Your task to perform on an android device: open app "Messenger Lite" Image 0: 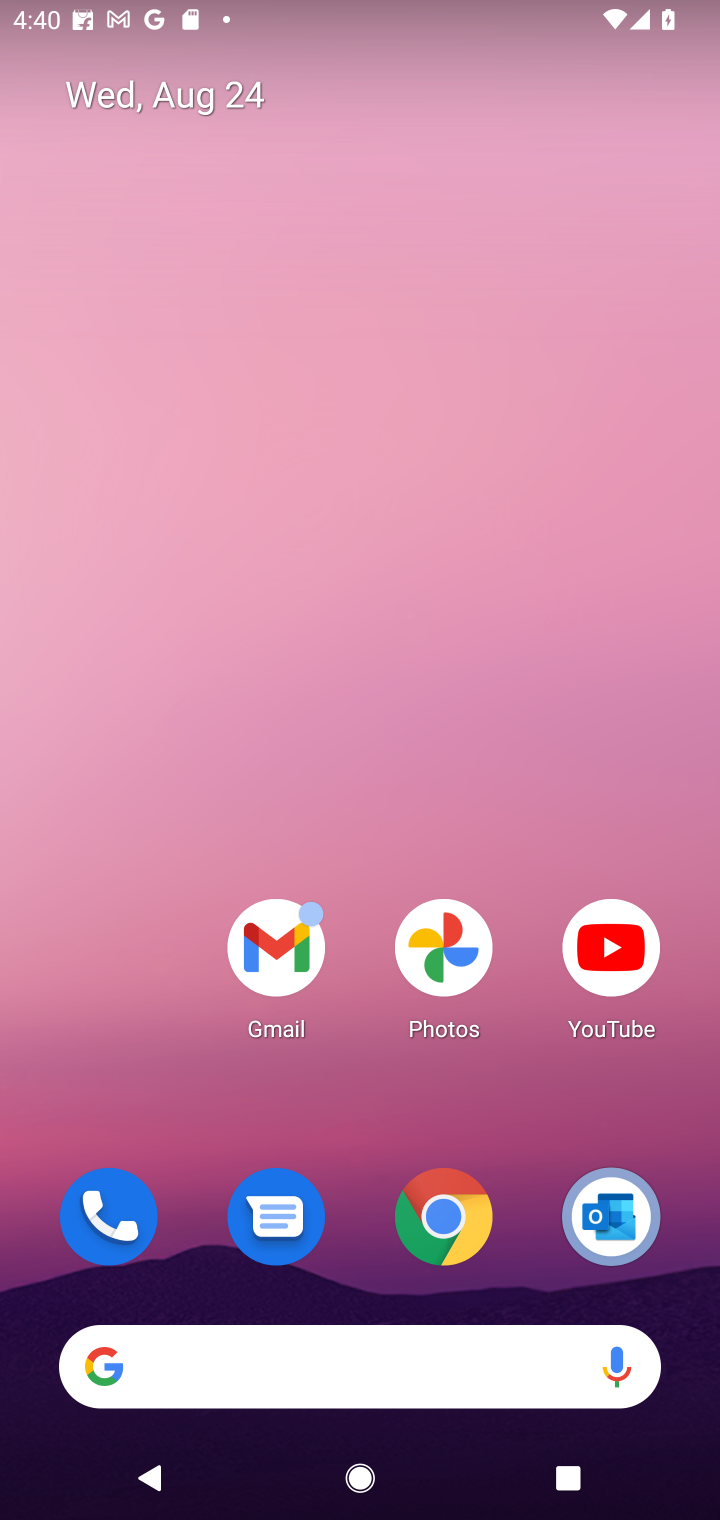
Step 0: drag from (389, 1064) to (413, 237)
Your task to perform on an android device: open app "Messenger Lite" Image 1: 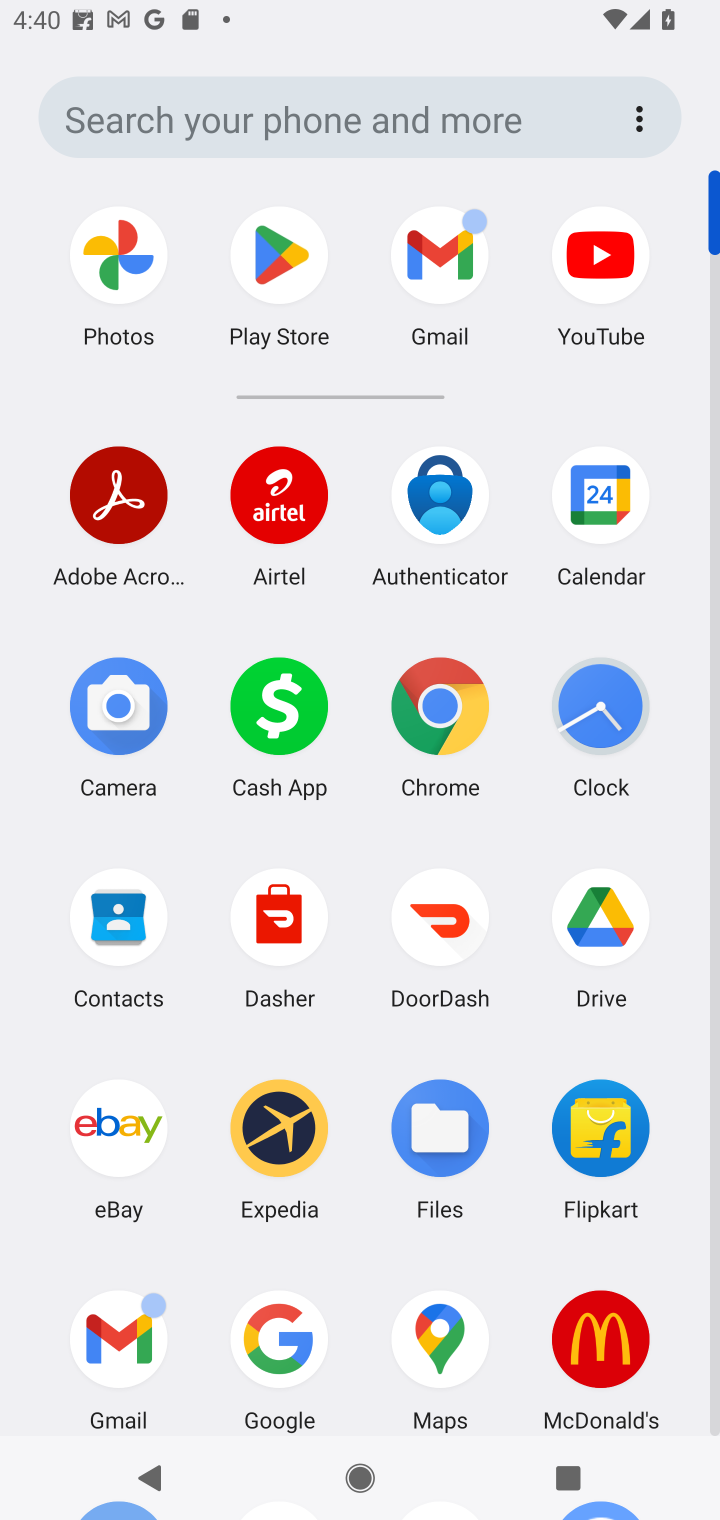
Step 1: click (254, 251)
Your task to perform on an android device: open app "Messenger Lite" Image 2: 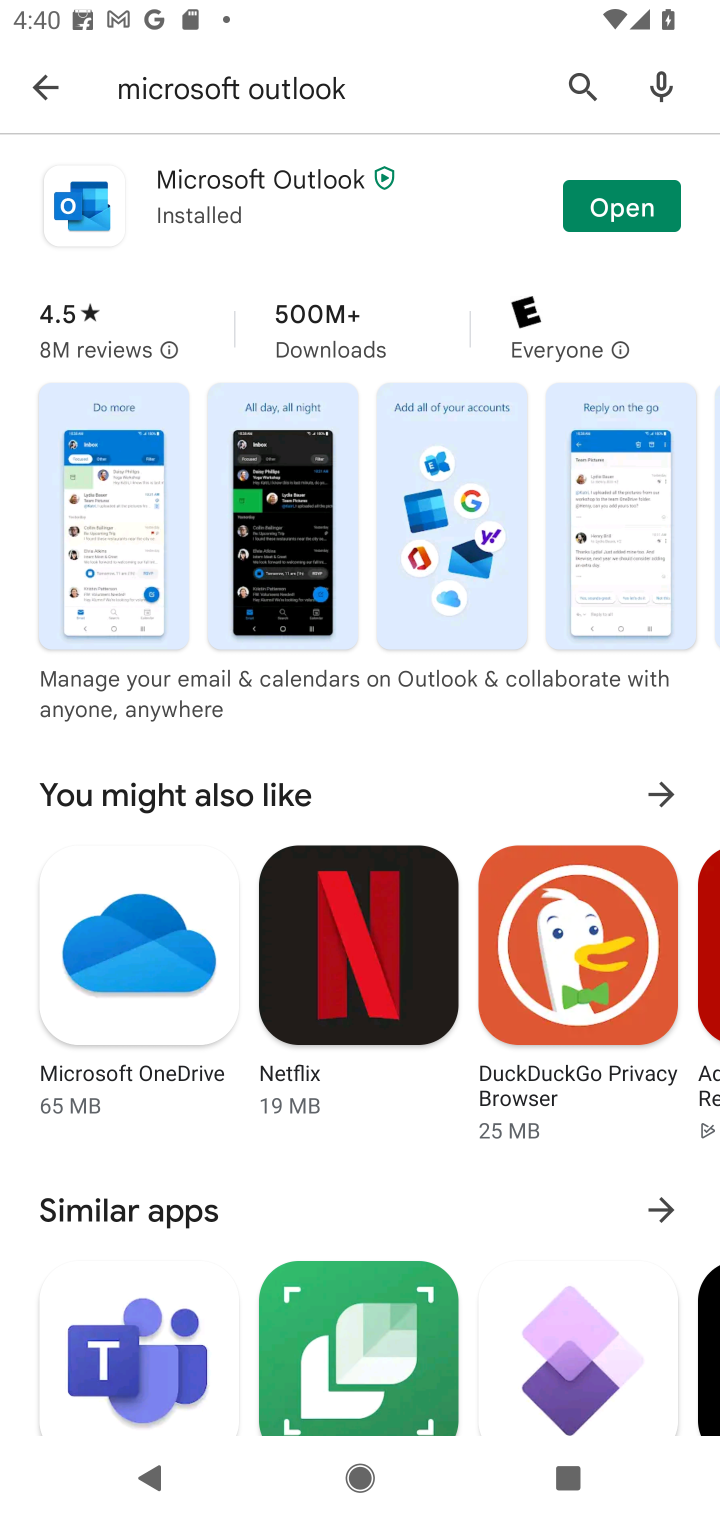
Step 2: click (580, 83)
Your task to perform on an android device: open app "Messenger Lite" Image 3: 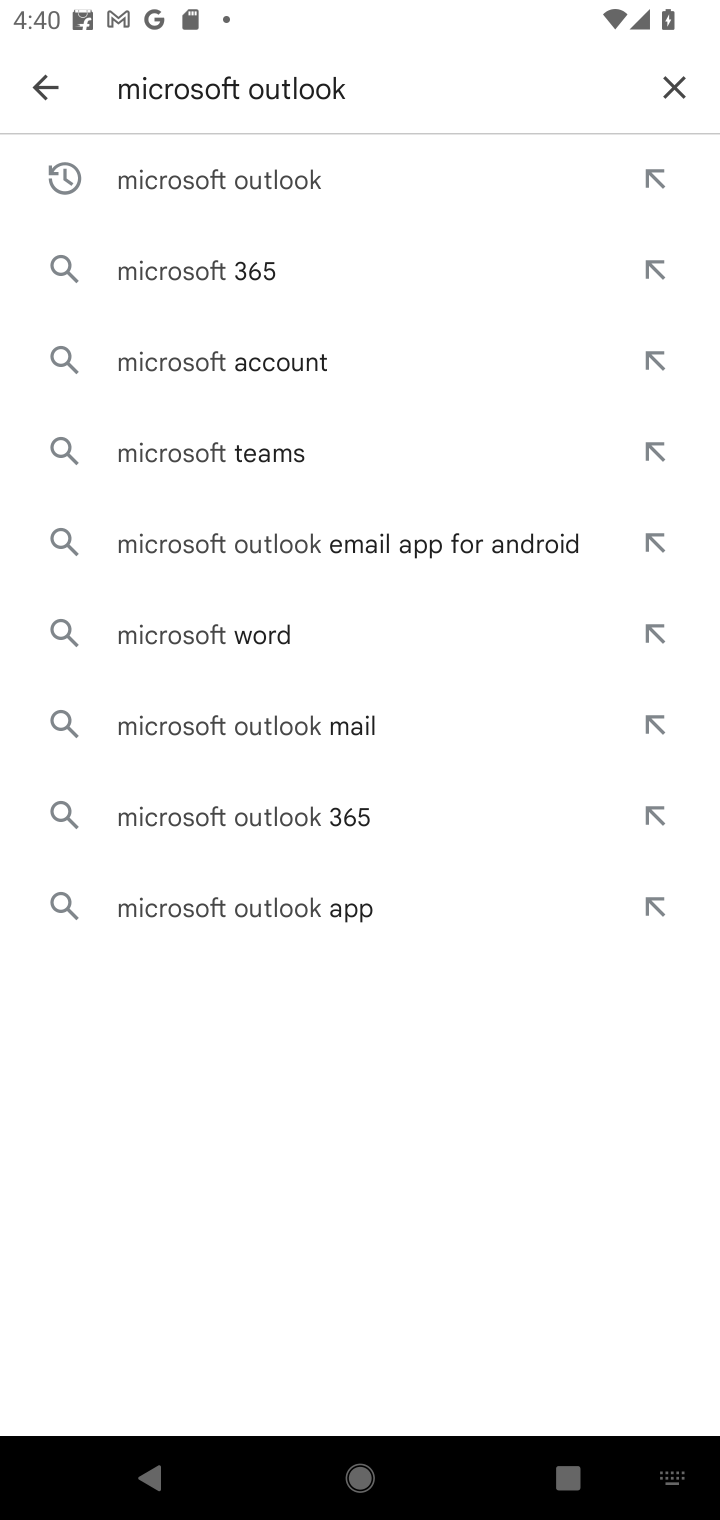
Step 3: click (655, 83)
Your task to perform on an android device: open app "Messenger Lite" Image 4: 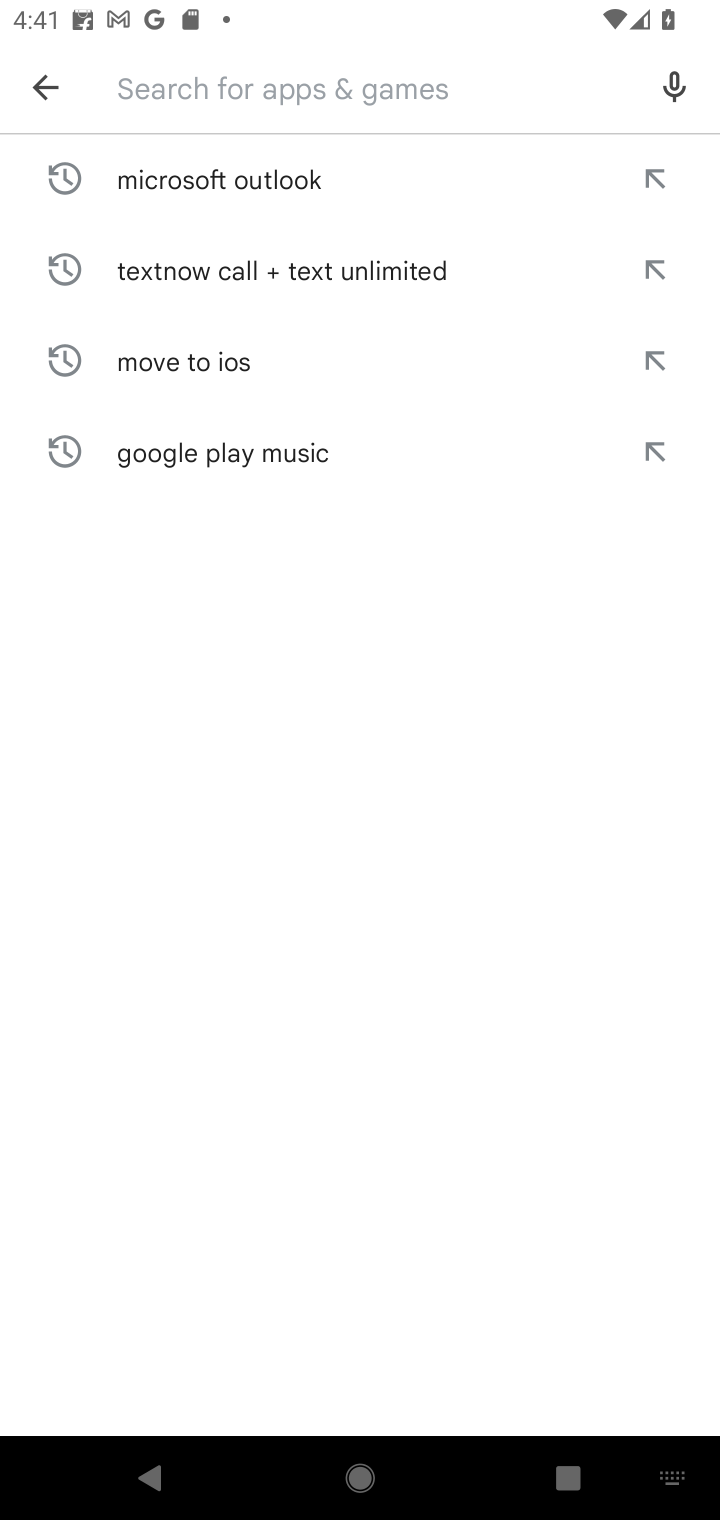
Step 4: type "Messenger Lite"
Your task to perform on an android device: open app "Messenger Lite" Image 5: 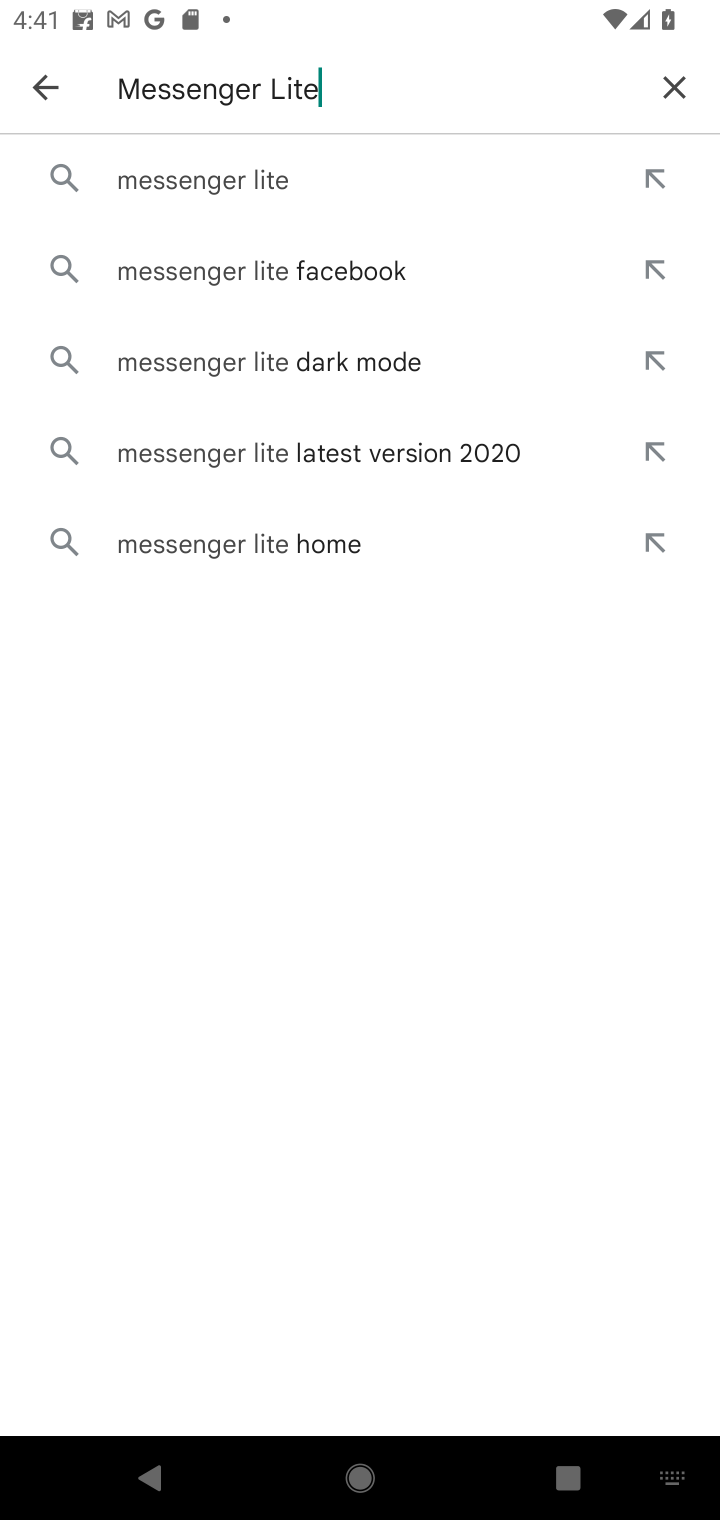
Step 5: click (298, 176)
Your task to perform on an android device: open app "Messenger Lite" Image 6: 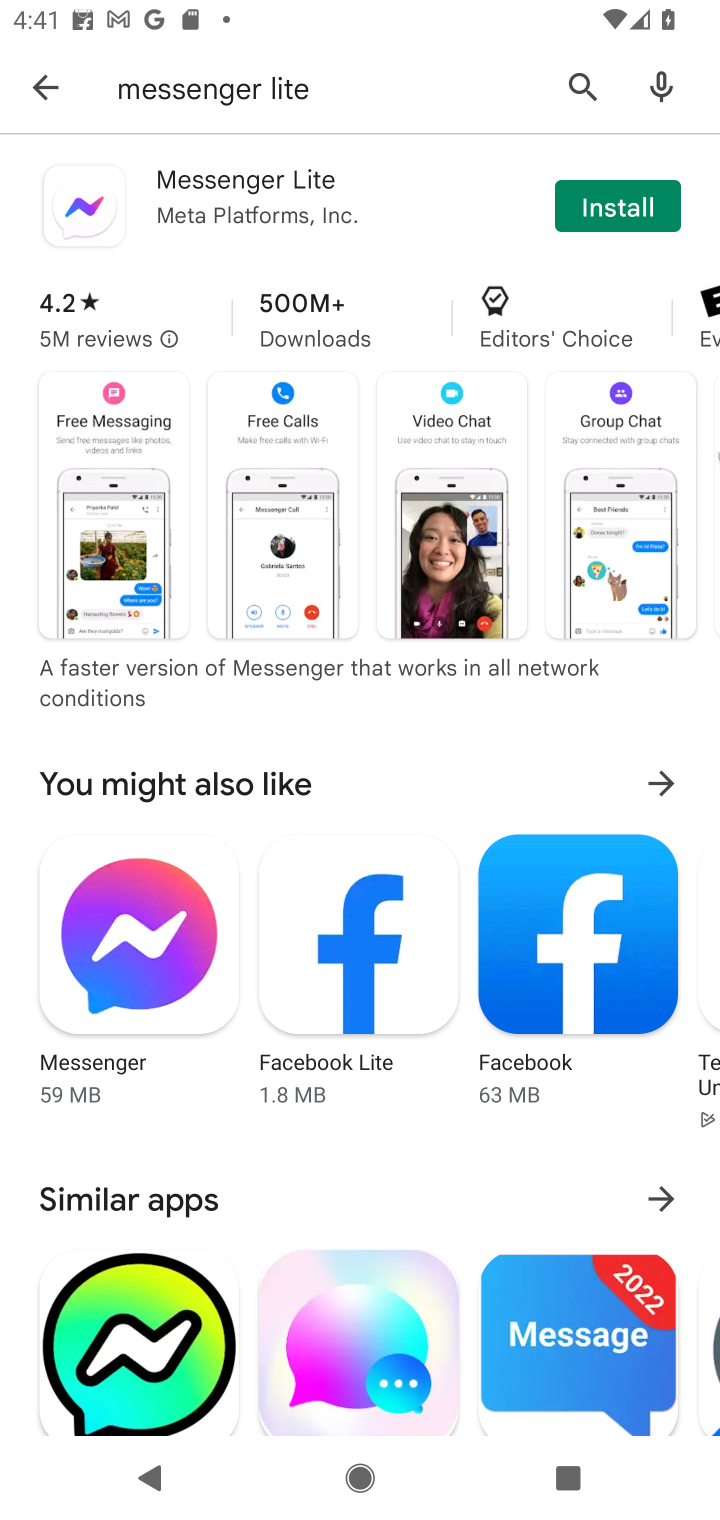
Step 6: task complete